Your task to perform on an android device: When is my next appointment? Image 0: 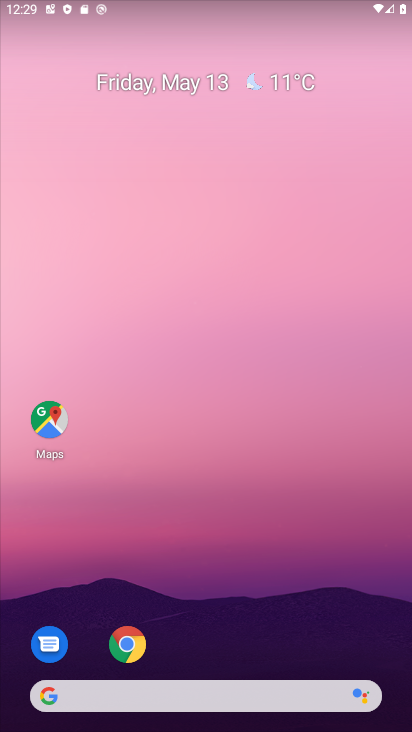
Step 0: drag from (225, 724) to (212, 176)
Your task to perform on an android device: When is my next appointment? Image 1: 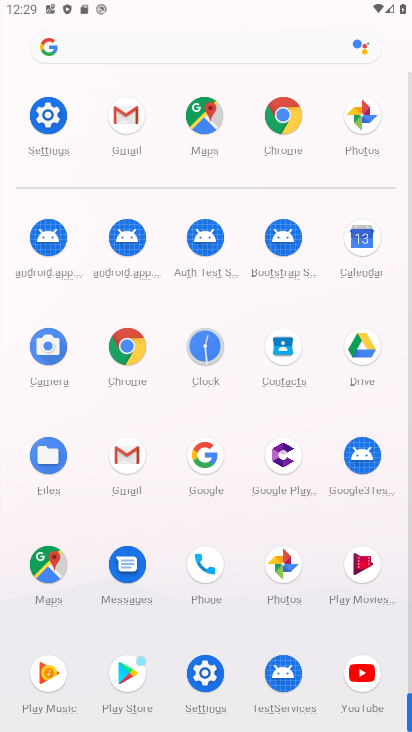
Step 1: click (361, 237)
Your task to perform on an android device: When is my next appointment? Image 2: 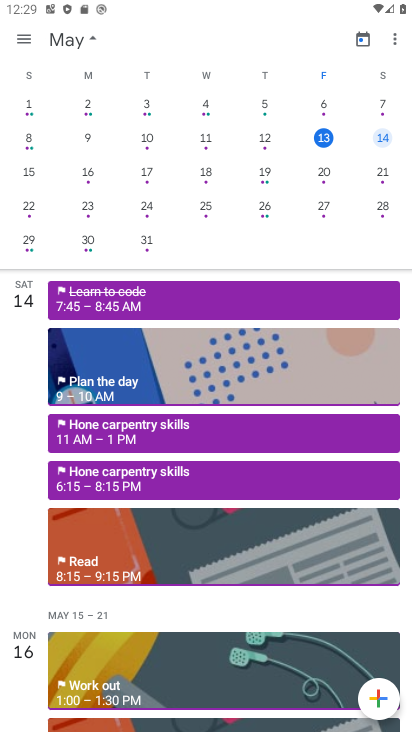
Step 2: click (385, 140)
Your task to perform on an android device: When is my next appointment? Image 3: 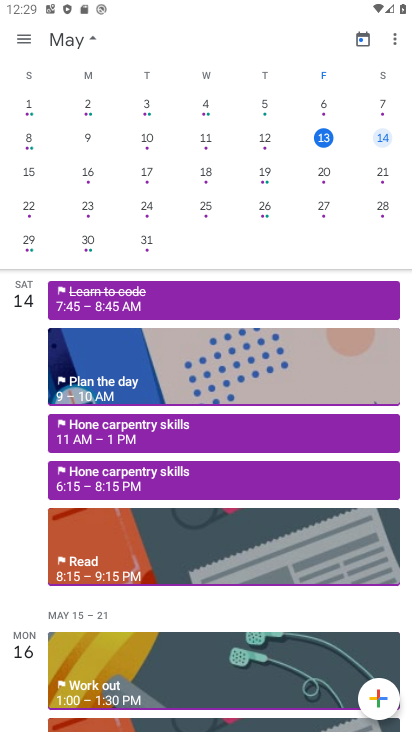
Step 3: task complete